Your task to perform on an android device: open app "Reddit" Image 0: 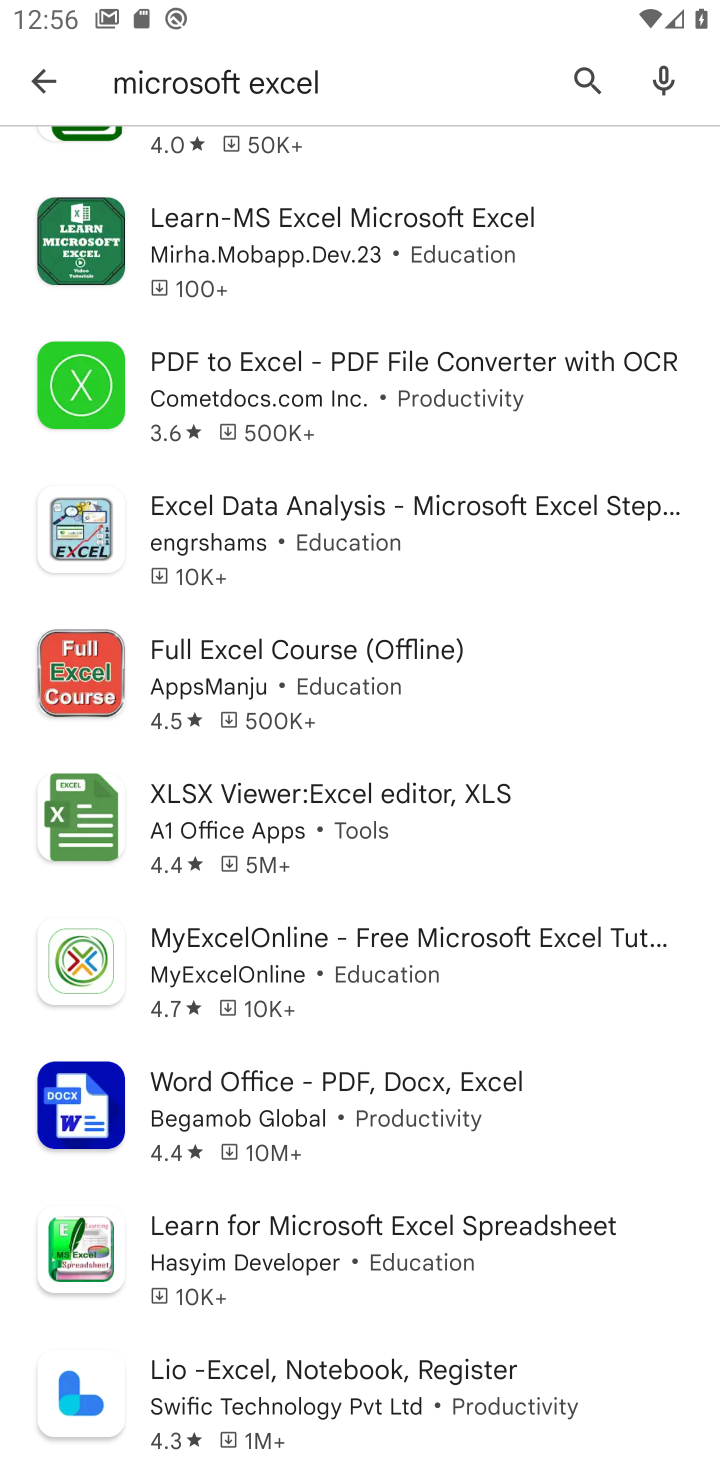
Step 0: click (577, 67)
Your task to perform on an android device: open app "Reddit" Image 1: 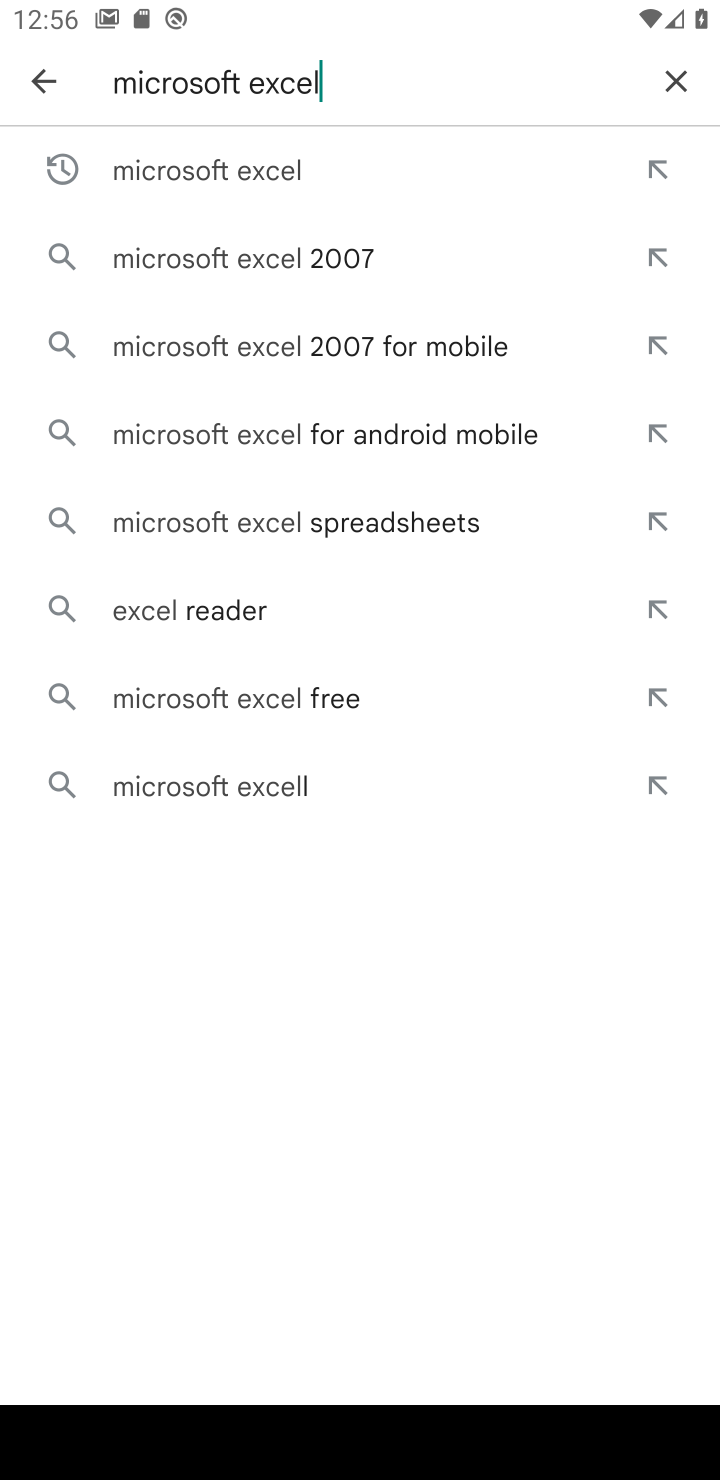
Step 1: click (680, 76)
Your task to perform on an android device: open app "Reddit" Image 2: 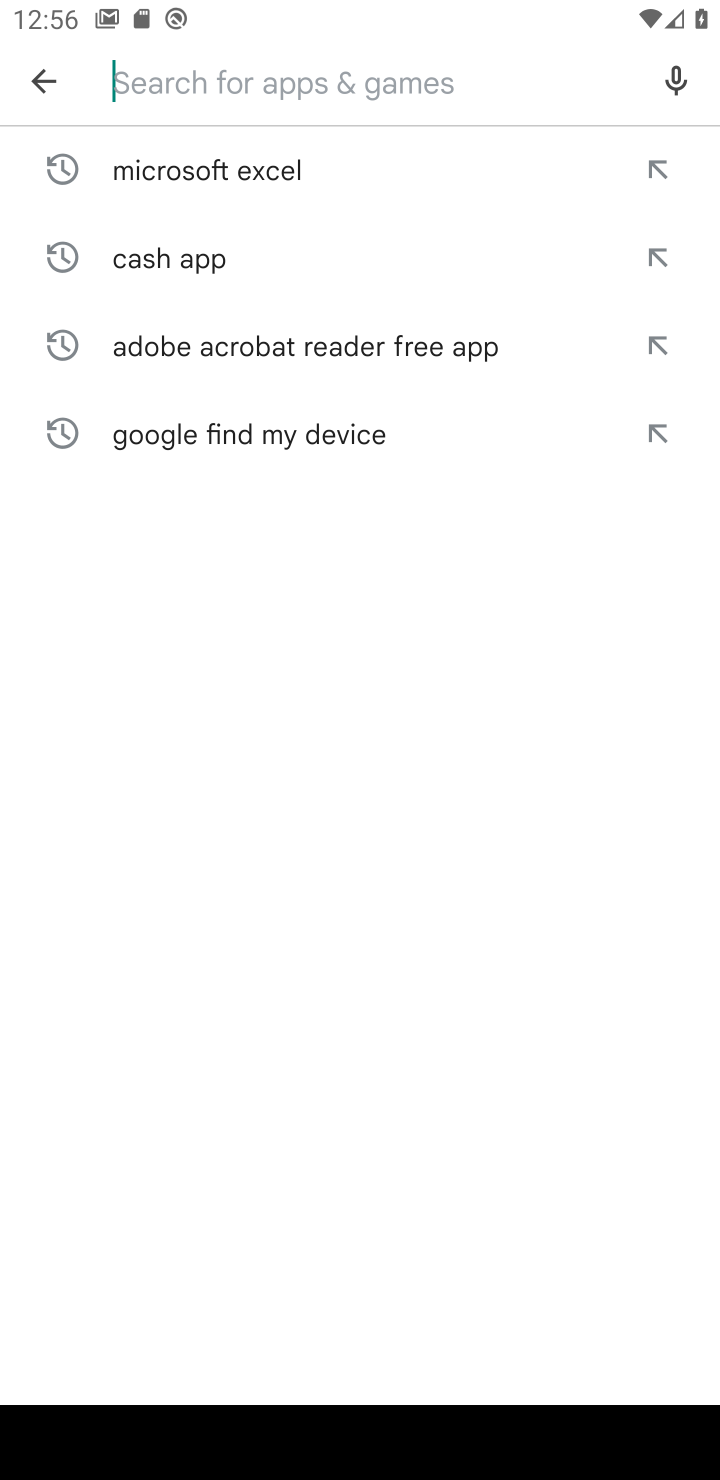
Step 2: type "Reddit"
Your task to perform on an android device: open app "Reddit" Image 3: 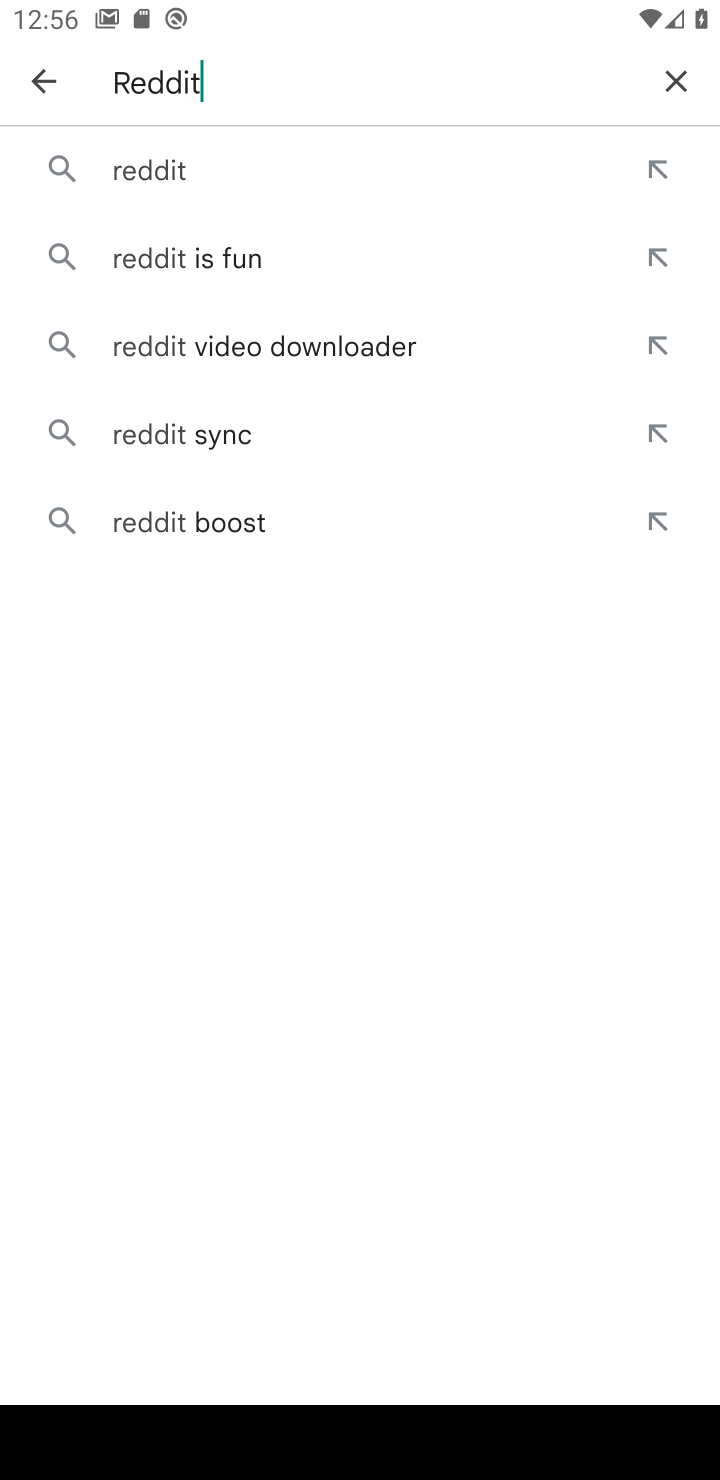
Step 3: click (147, 174)
Your task to perform on an android device: open app "Reddit" Image 4: 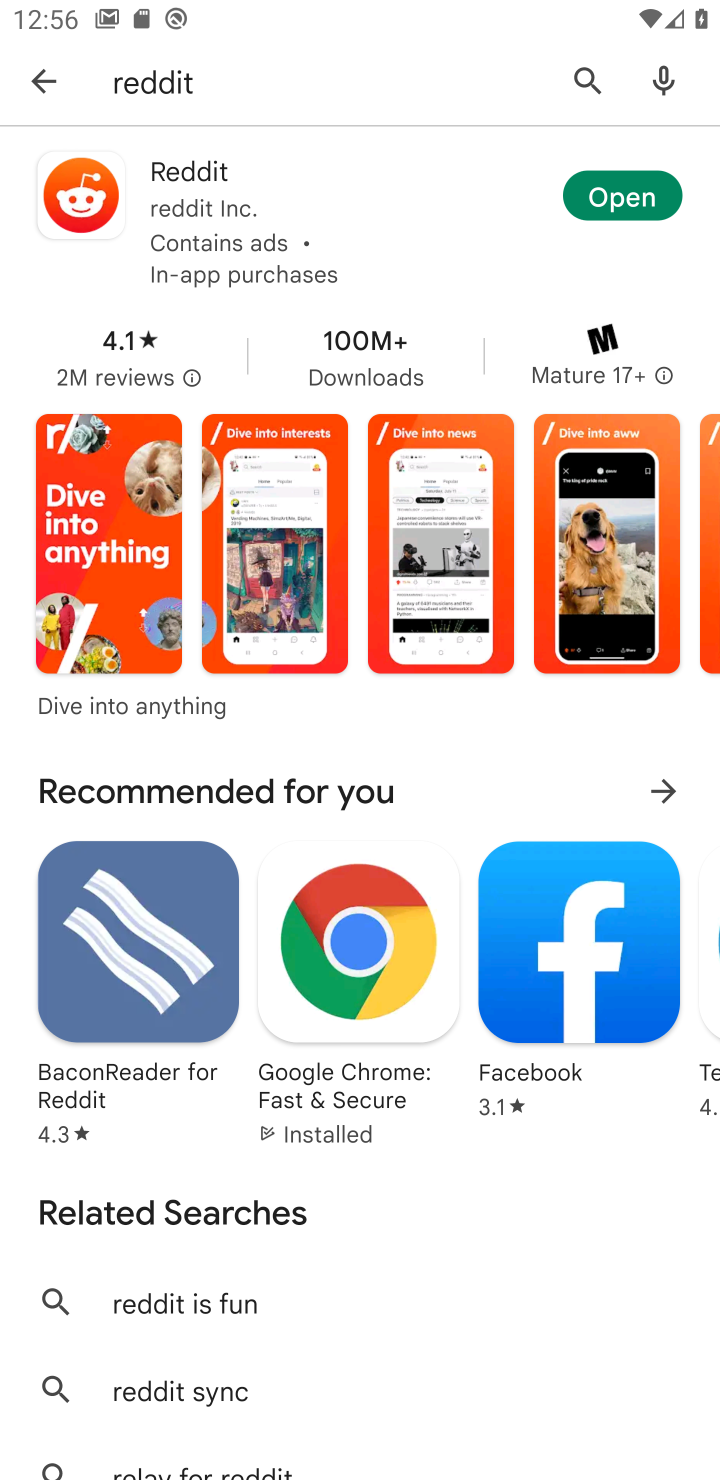
Step 4: click (606, 194)
Your task to perform on an android device: open app "Reddit" Image 5: 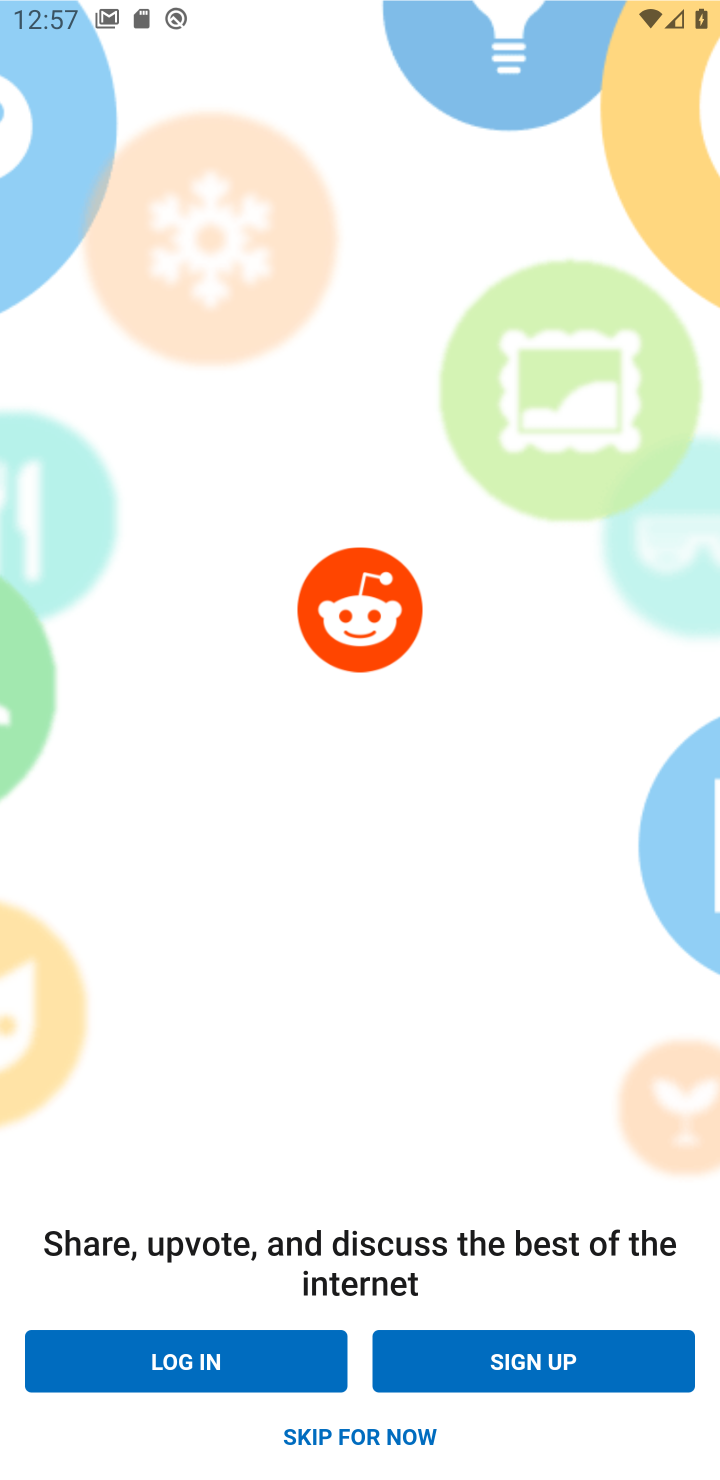
Step 5: task complete